Your task to perform on an android device: search for starred emails in the gmail app Image 0: 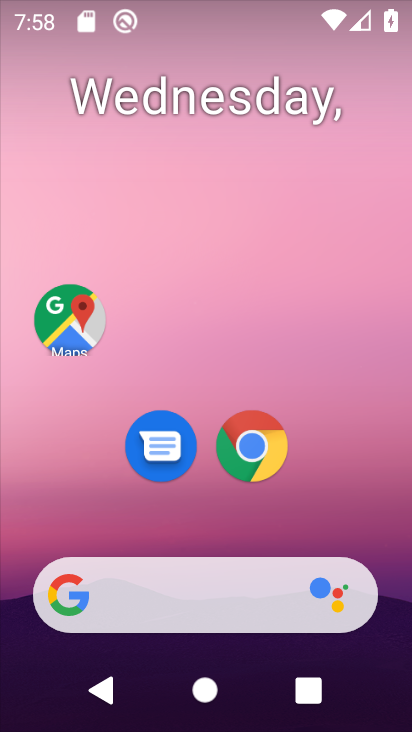
Step 0: press home button
Your task to perform on an android device: search for starred emails in the gmail app Image 1: 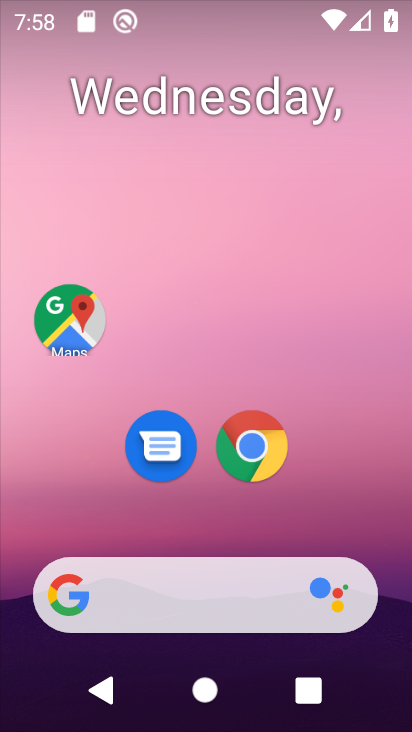
Step 1: drag from (199, 526) to (234, 61)
Your task to perform on an android device: search for starred emails in the gmail app Image 2: 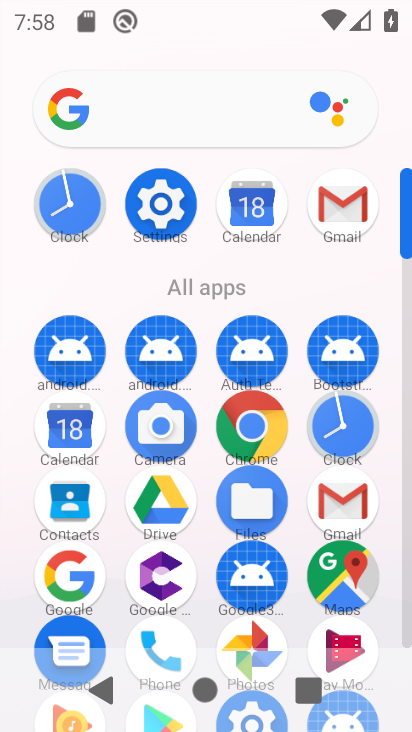
Step 2: click (341, 191)
Your task to perform on an android device: search for starred emails in the gmail app Image 3: 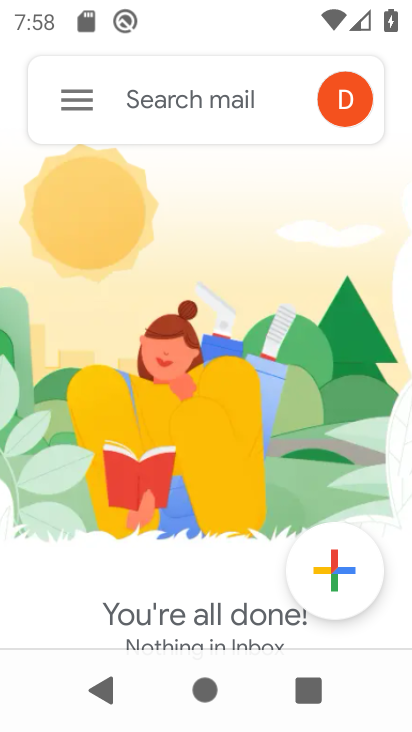
Step 3: click (79, 95)
Your task to perform on an android device: search for starred emails in the gmail app Image 4: 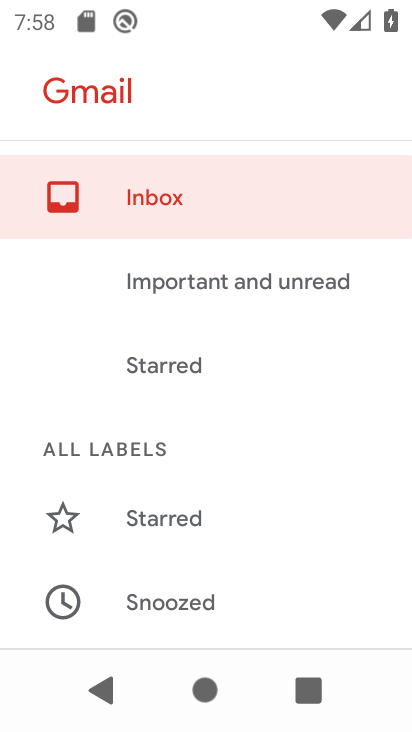
Step 4: click (208, 511)
Your task to perform on an android device: search for starred emails in the gmail app Image 5: 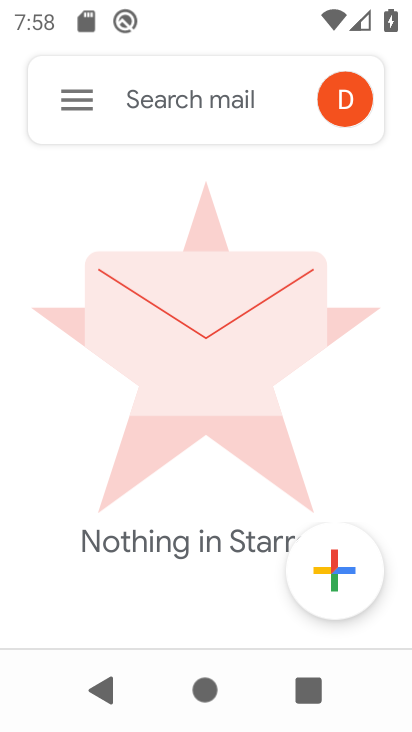
Step 5: task complete